Your task to perform on an android device: Open privacy settings Image 0: 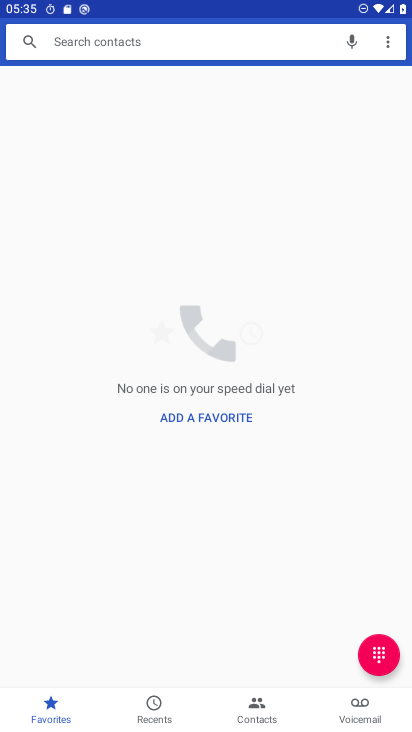
Step 0: press home button
Your task to perform on an android device: Open privacy settings Image 1: 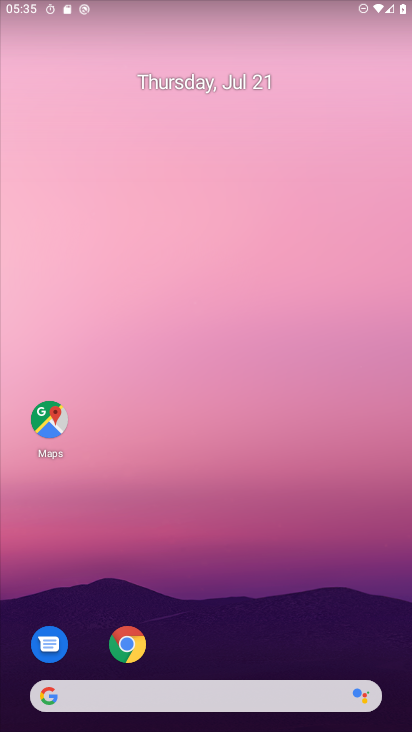
Step 1: drag from (181, 658) to (183, 153)
Your task to perform on an android device: Open privacy settings Image 2: 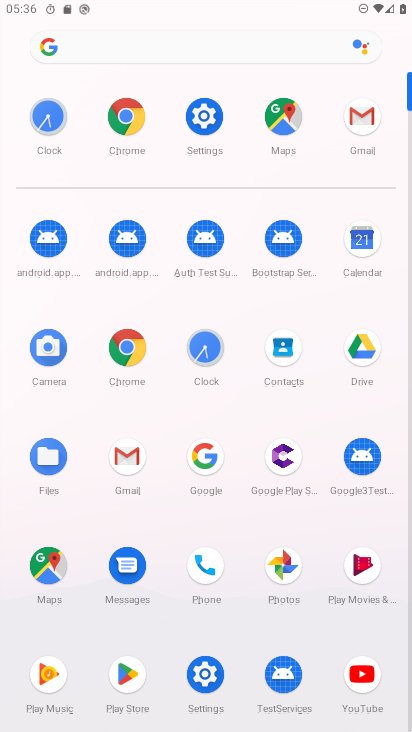
Step 2: click (193, 114)
Your task to perform on an android device: Open privacy settings Image 3: 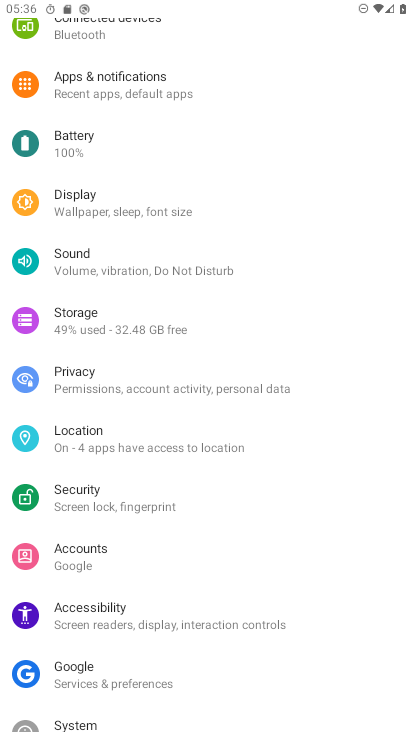
Step 3: click (109, 388)
Your task to perform on an android device: Open privacy settings Image 4: 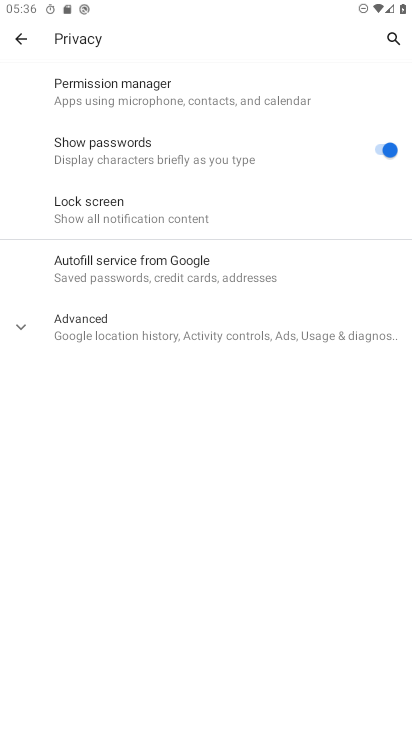
Step 4: task complete